Your task to perform on an android device: Show the shopping cart on target.com. Search for beats solo 3 on target.com, select the first entry, add it to the cart, then select checkout. Image 0: 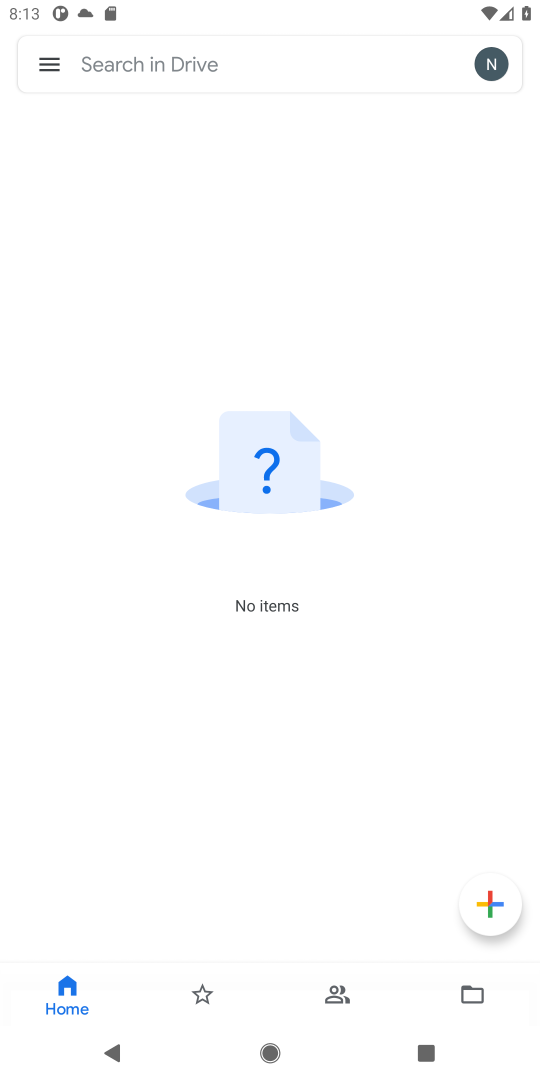
Step 0: press home button
Your task to perform on an android device: Show the shopping cart on target.com. Search for beats solo 3 on target.com, select the first entry, add it to the cart, then select checkout. Image 1: 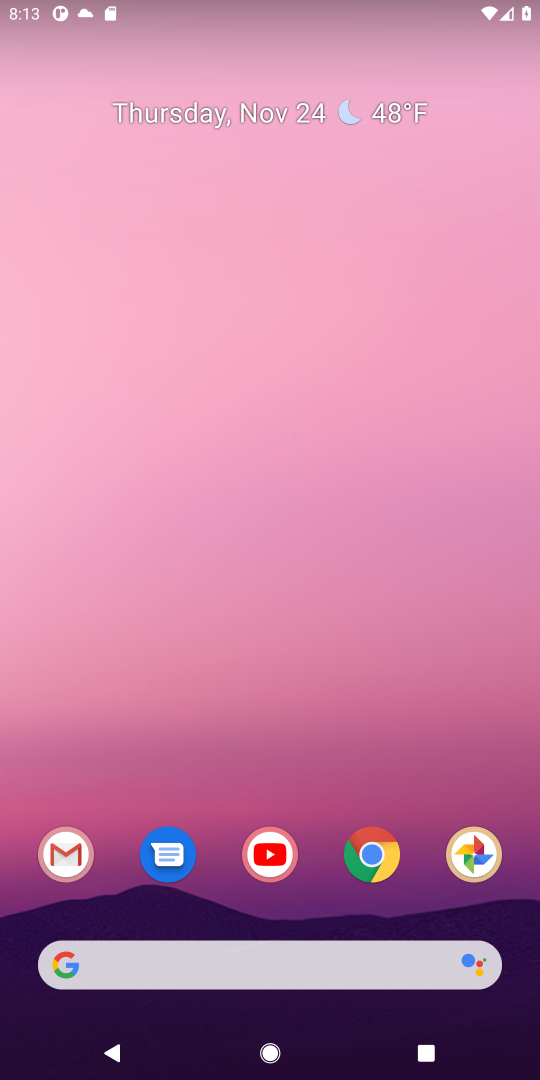
Step 1: click (361, 860)
Your task to perform on an android device: Show the shopping cart on target.com. Search for beats solo 3 on target.com, select the first entry, add it to the cart, then select checkout. Image 2: 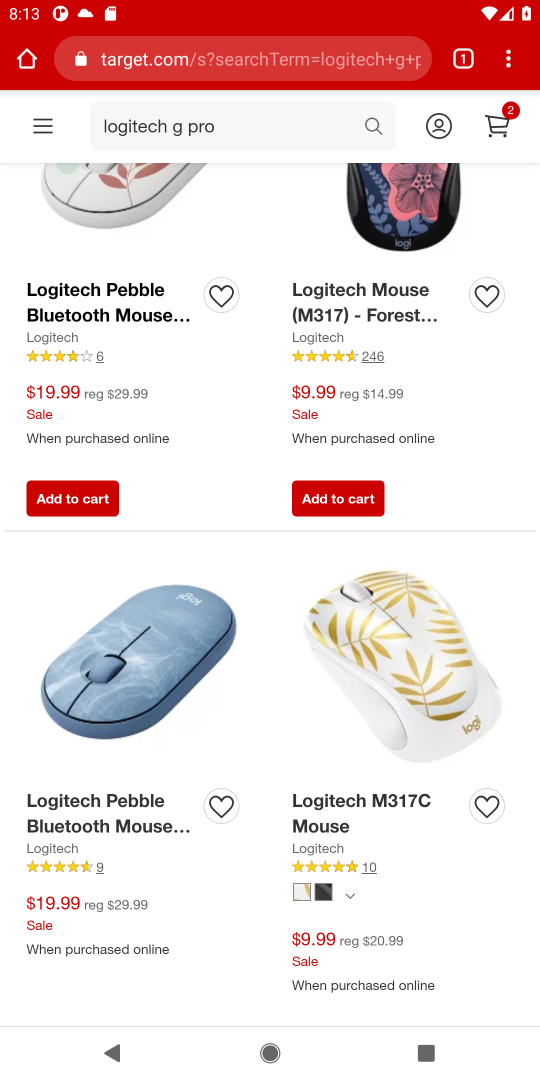
Step 2: click (174, 60)
Your task to perform on an android device: Show the shopping cart on target.com. Search for beats solo 3 on target.com, select the first entry, add it to the cart, then select checkout. Image 3: 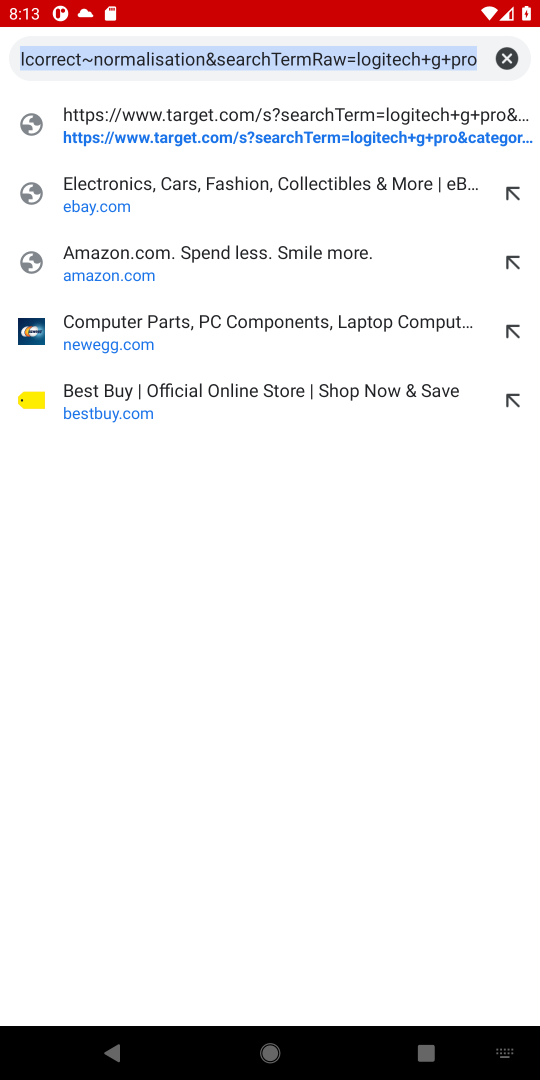
Step 3: click (252, 471)
Your task to perform on an android device: Show the shopping cart on target.com. Search for beats solo 3 on target.com, select the first entry, add it to the cart, then select checkout. Image 4: 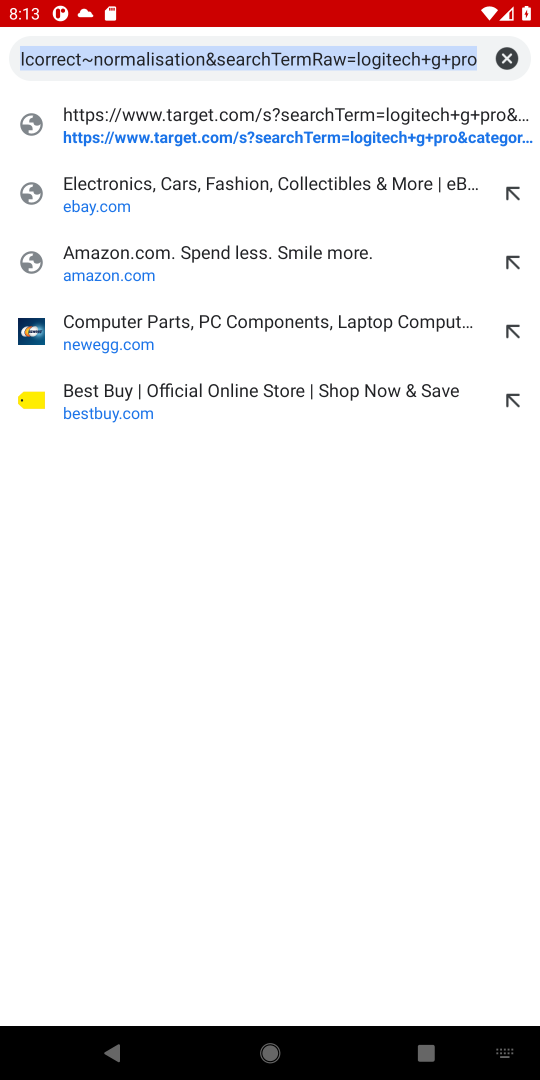
Step 4: click (162, 136)
Your task to perform on an android device: Show the shopping cart on target.com. Search for beats solo 3 on target.com, select the first entry, add it to the cart, then select checkout. Image 5: 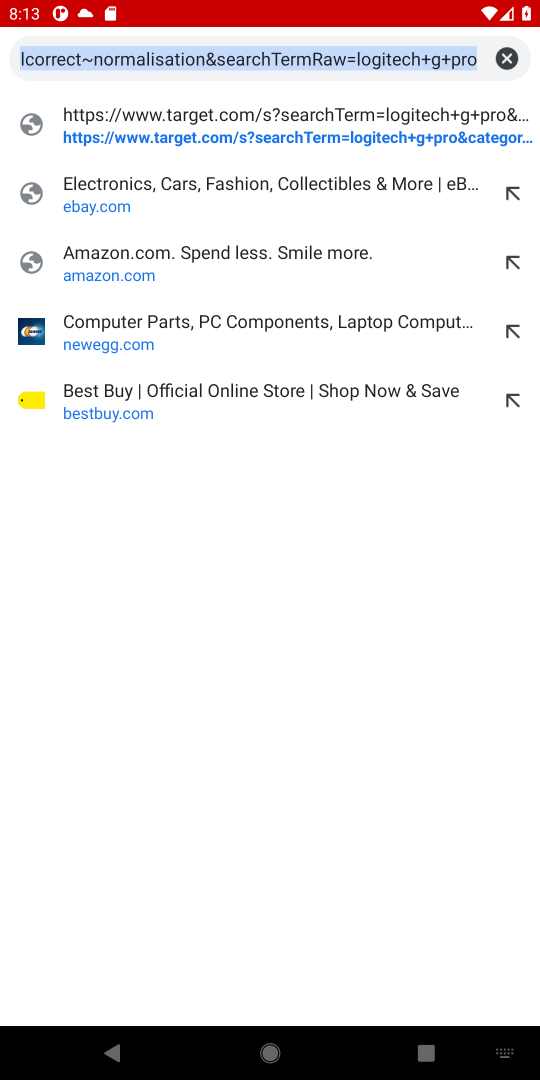
Step 5: click (131, 126)
Your task to perform on an android device: Show the shopping cart on target.com. Search for beats solo 3 on target.com, select the first entry, add it to the cart, then select checkout. Image 6: 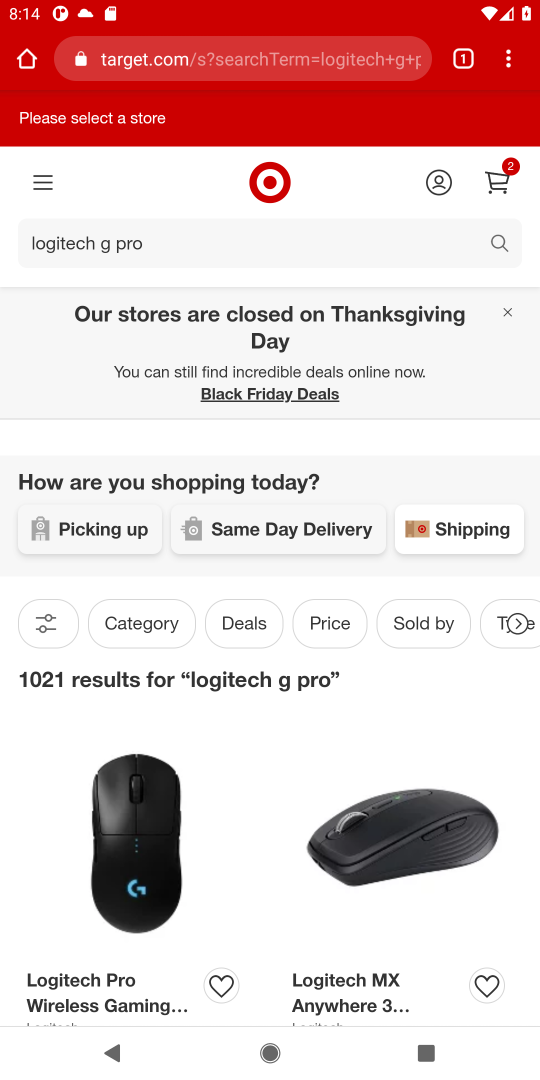
Step 6: click (497, 188)
Your task to perform on an android device: Show the shopping cart on target.com. Search for beats solo 3 on target.com, select the first entry, add it to the cart, then select checkout. Image 7: 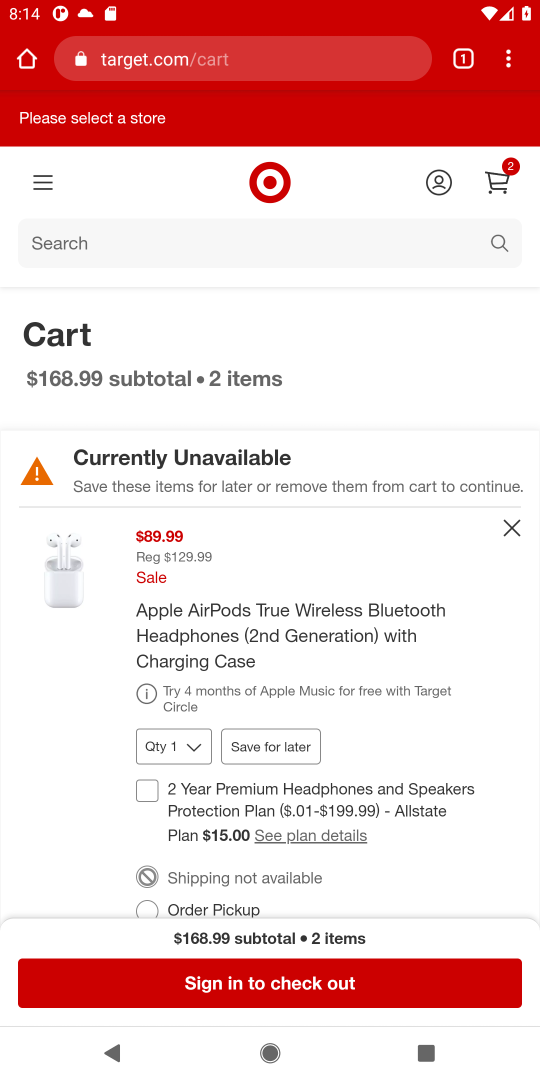
Step 7: drag from (277, 673) to (338, 386)
Your task to perform on an android device: Show the shopping cart on target.com. Search for beats solo 3 on target.com, select the first entry, add it to the cart, then select checkout. Image 8: 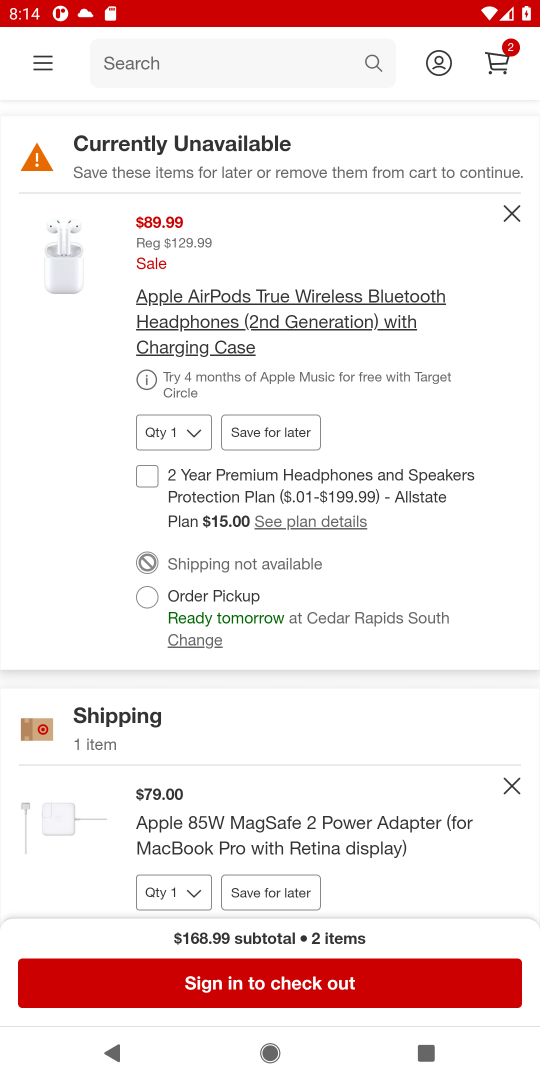
Step 8: drag from (302, 258) to (311, 605)
Your task to perform on an android device: Show the shopping cart on target.com. Search for beats solo 3 on target.com, select the first entry, add it to the cart, then select checkout. Image 9: 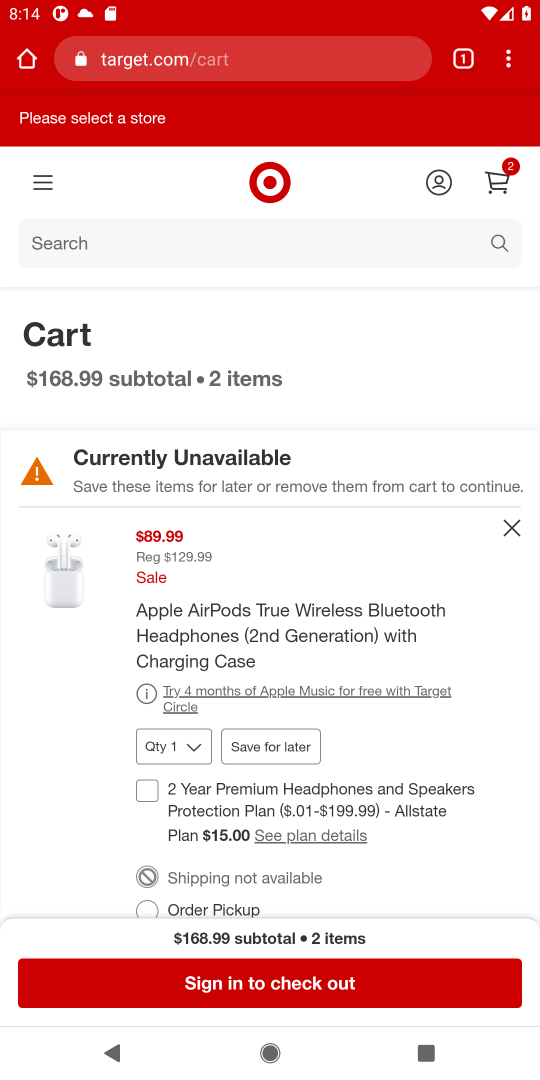
Step 9: click (190, 241)
Your task to perform on an android device: Show the shopping cart on target.com. Search for beats solo 3 on target.com, select the first entry, add it to the cart, then select checkout. Image 10: 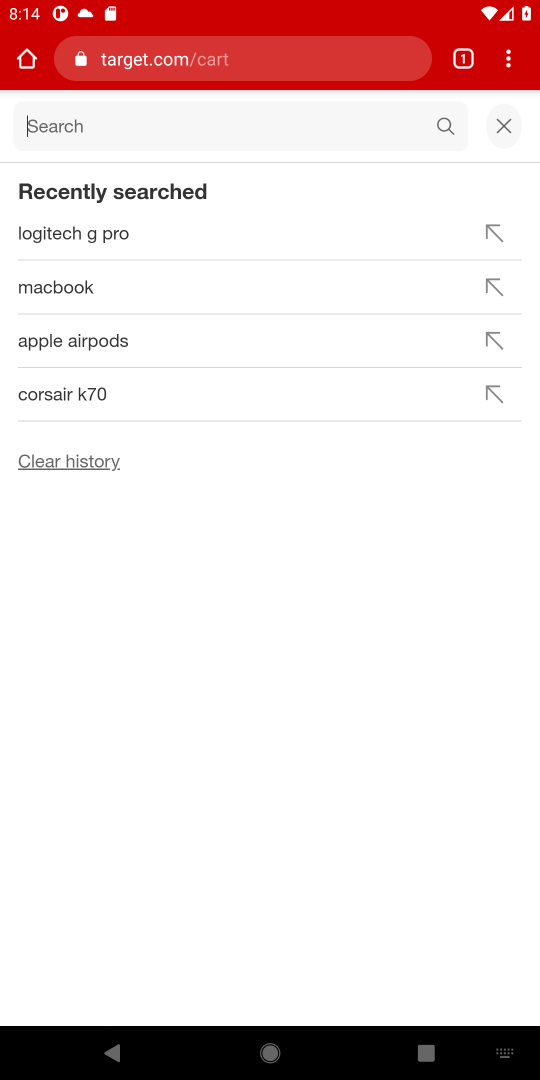
Step 10: type "beats solo 3"
Your task to perform on an android device: Show the shopping cart on target.com. Search for beats solo 3 on target.com, select the first entry, add it to the cart, then select checkout. Image 11: 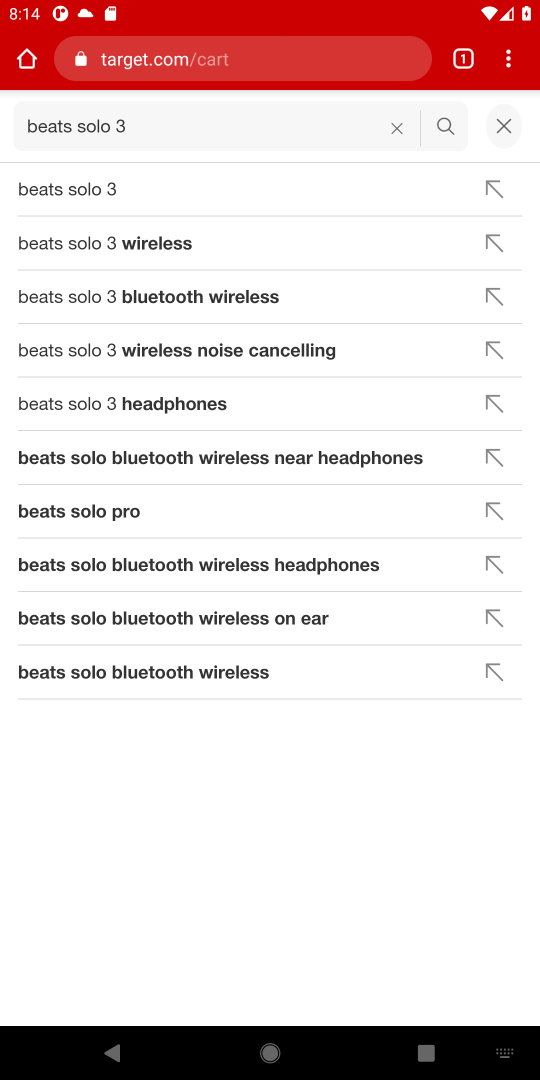
Step 11: click (63, 197)
Your task to perform on an android device: Show the shopping cart on target.com. Search for beats solo 3 on target.com, select the first entry, add it to the cart, then select checkout. Image 12: 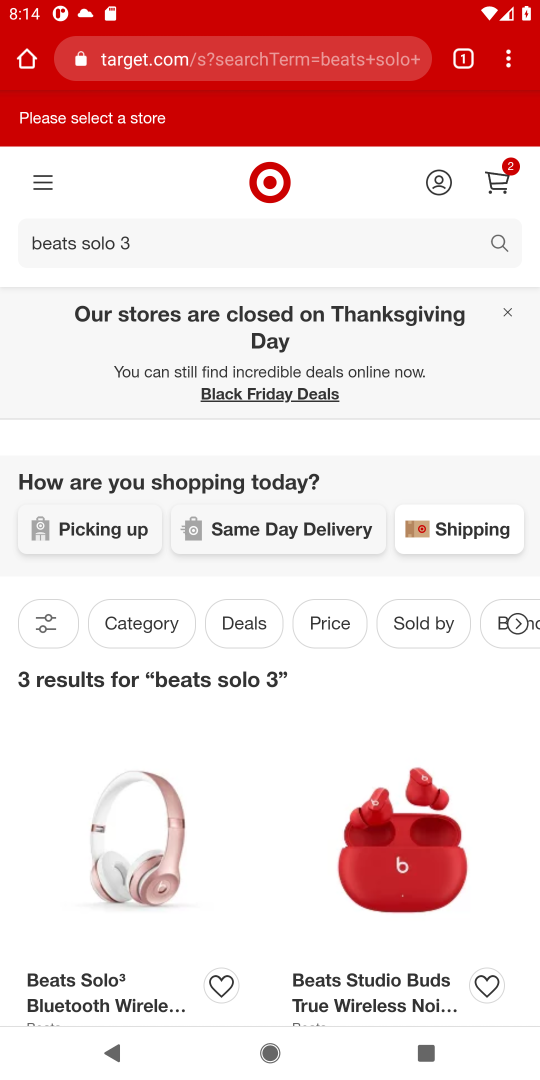
Step 12: drag from (218, 775) to (218, 458)
Your task to perform on an android device: Show the shopping cart on target.com. Search for beats solo 3 on target.com, select the first entry, add it to the cart, then select checkout. Image 13: 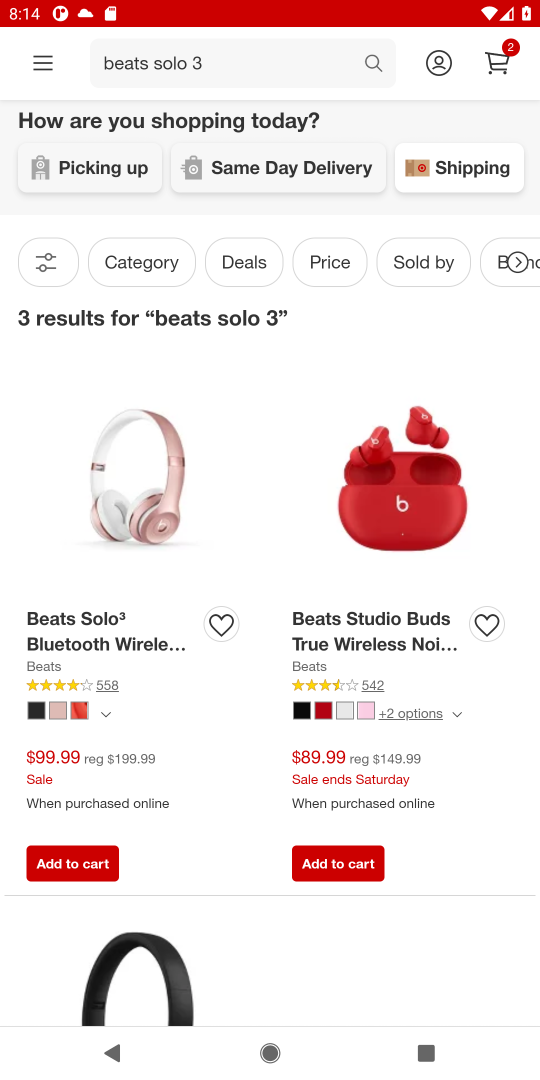
Step 13: click (126, 581)
Your task to perform on an android device: Show the shopping cart on target.com. Search for beats solo 3 on target.com, select the first entry, add it to the cart, then select checkout. Image 14: 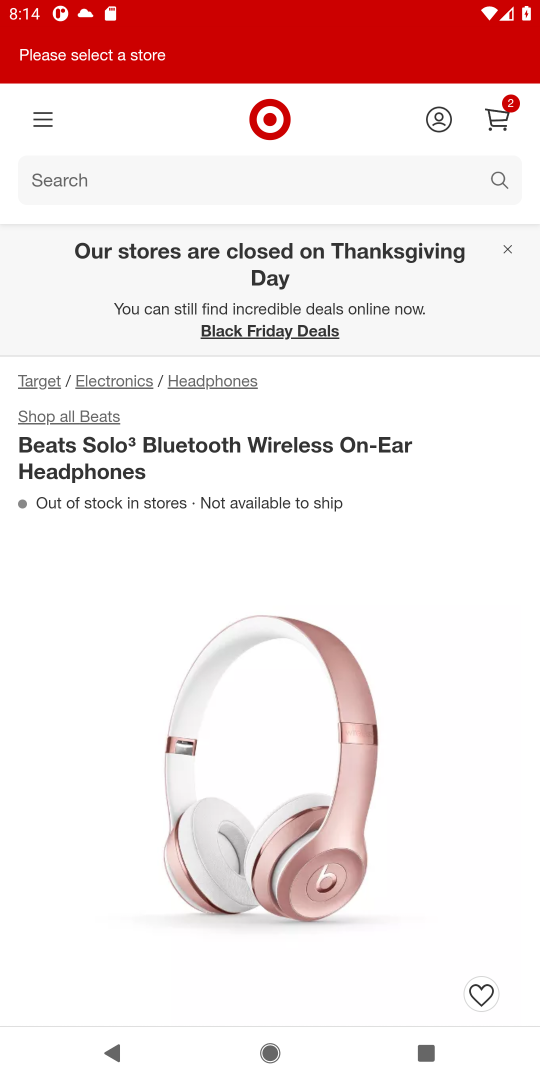
Step 14: drag from (254, 786) to (286, 227)
Your task to perform on an android device: Show the shopping cart on target.com. Search for beats solo 3 on target.com, select the first entry, add it to the cart, then select checkout. Image 15: 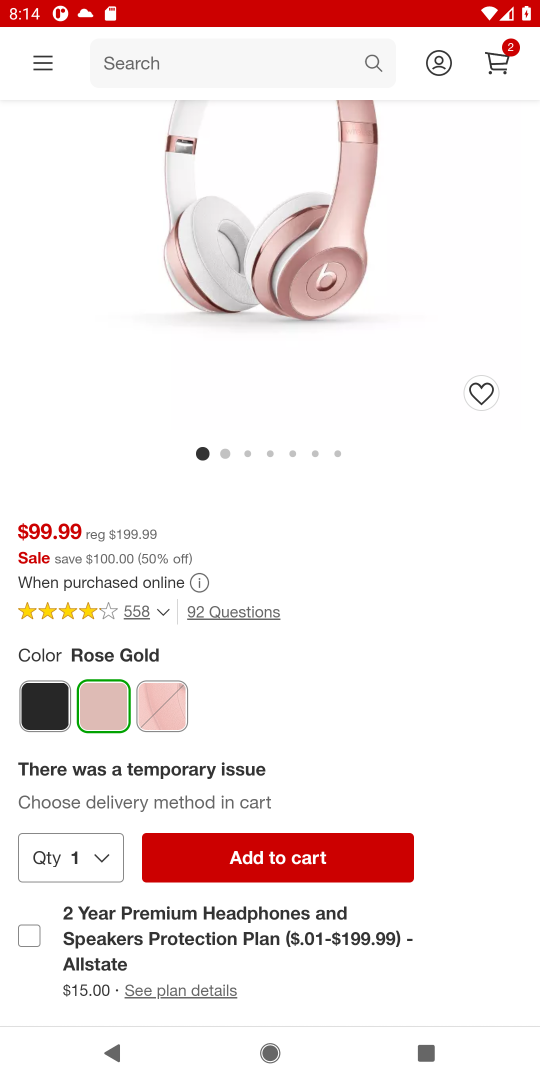
Step 15: click (264, 859)
Your task to perform on an android device: Show the shopping cart on target.com. Search for beats solo 3 on target.com, select the first entry, add it to the cart, then select checkout. Image 16: 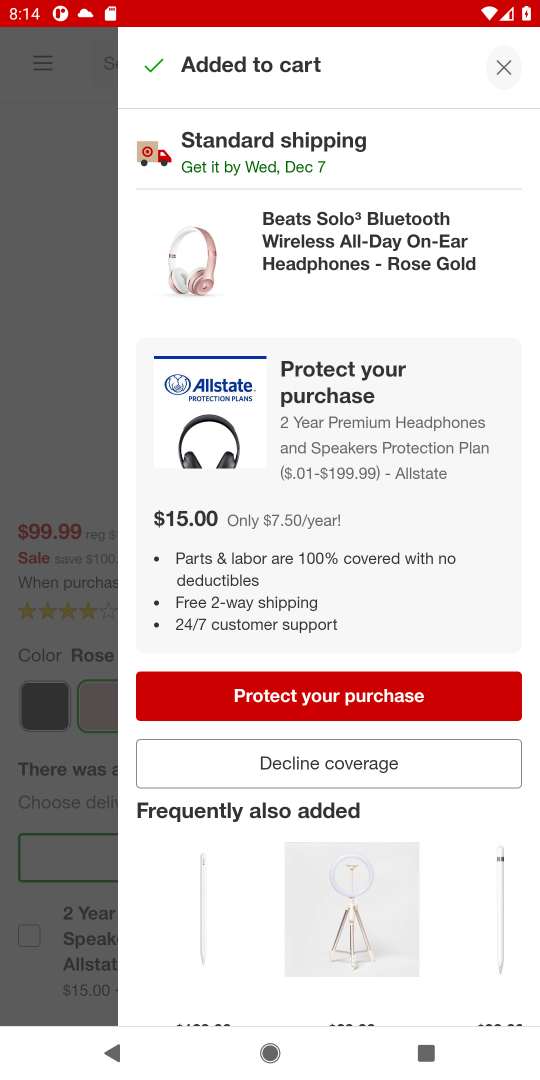
Step 16: click (510, 75)
Your task to perform on an android device: Show the shopping cart on target.com. Search for beats solo 3 on target.com, select the first entry, add it to the cart, then select checkout. Image 17: 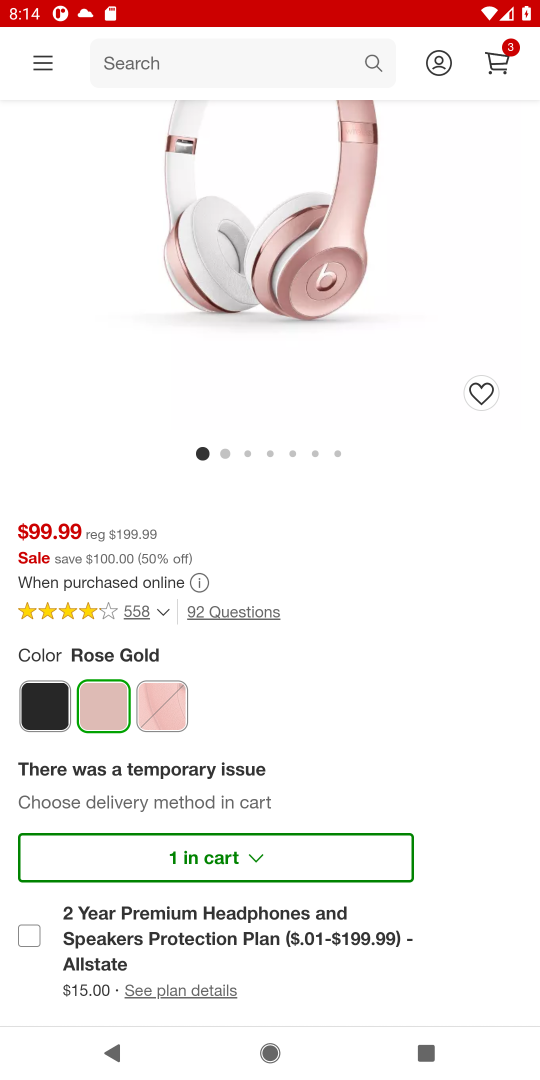
Step 17: click (493, 57)
Your task to perform on an android device: Show the shopping cart on target.com. Search for beats solo 3 on target.com, select the first entry, add it to the cart, then select checkout. Image 18: 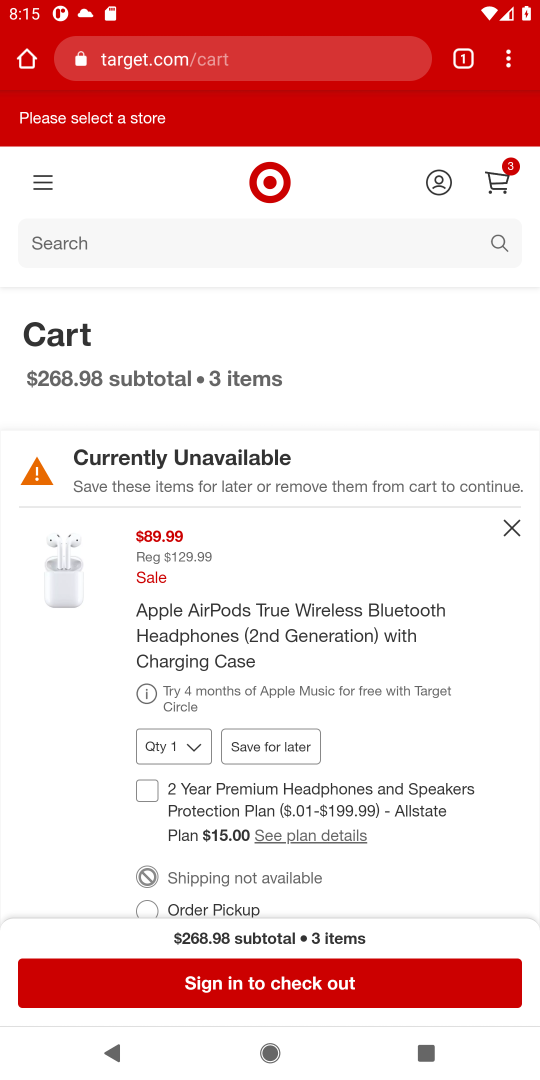
Step 18: drag from (275, 827) to (272, 402)
Your task to perform on an android device: Show the shopping cart on target.com. Search for beats solo 3 on target.com, select the first entry, add it to the cart, then select checkout. Image 19: 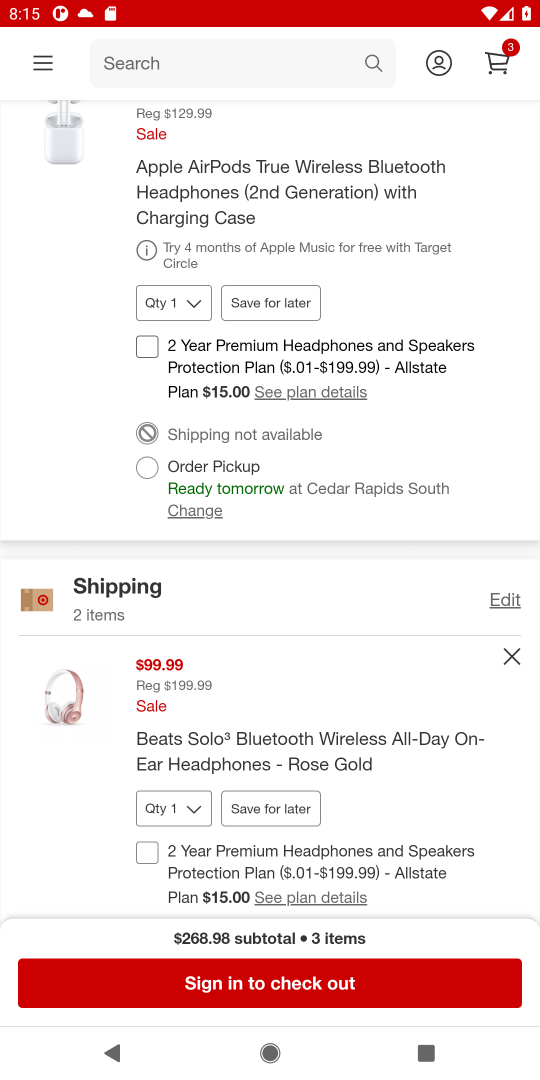
Step 19: click (258, 980)
Your task to perform on an android device: Show the shopping cart on target.com. Search for beats solo 3 on target.com, select the first entry, add it to the cart, then select checkout. Image 20: 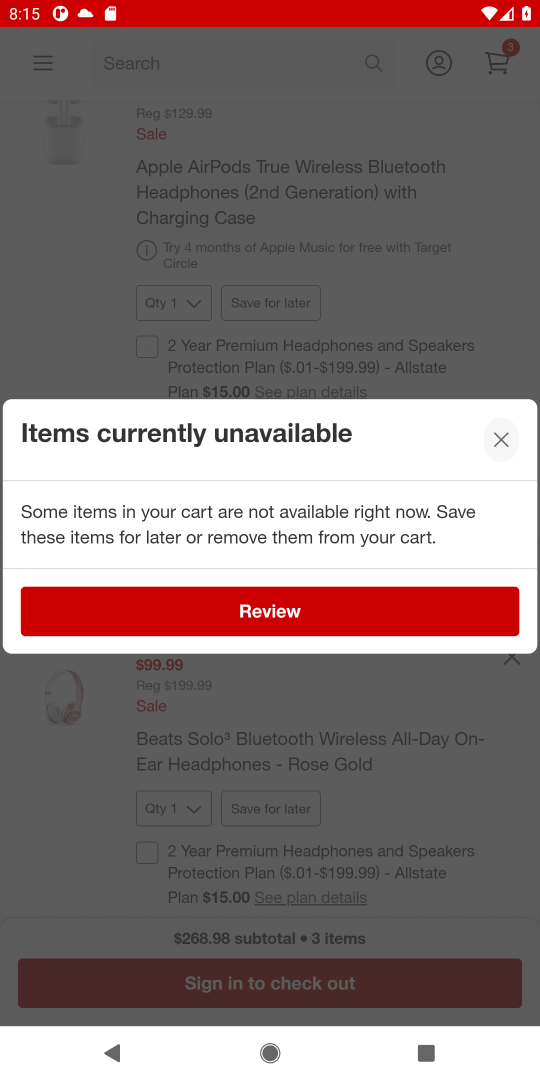
Step 20: task complete